Your task to perform on an android device: Open Chrome and go to settings Image 0: 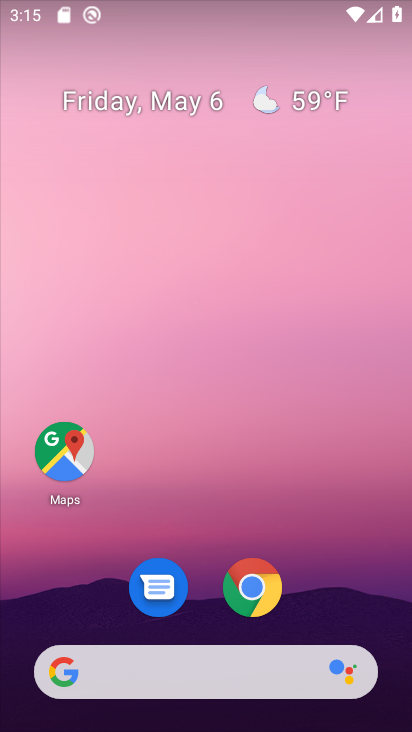
Step 0: drag from (235, 516) to (306, 35)
Your task to perform on an android device: Open Chrome and go to settings Image 1: 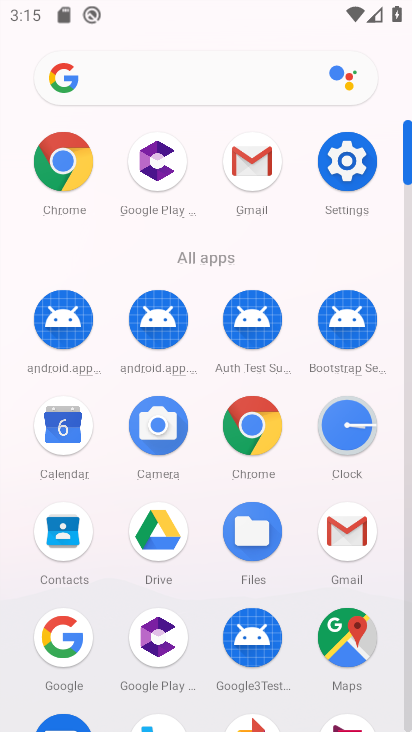
Step 1: click (71, 153)
Your task to perform on an android device: Open Chrome and go to settings Image 2: 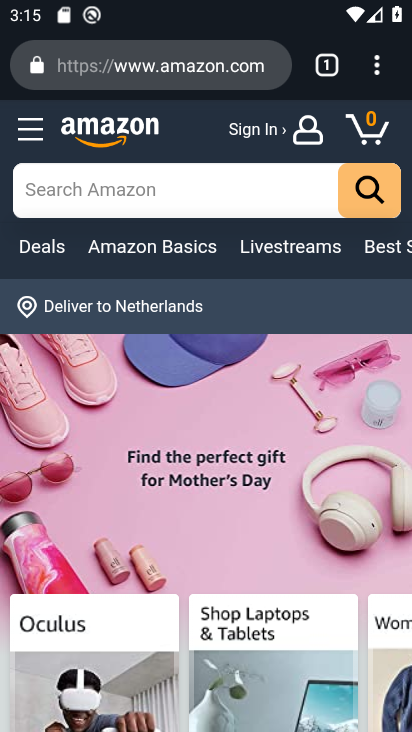
Step 2: task complete